Your task to perform on an android device: turn on bluetooth scan Image 0: 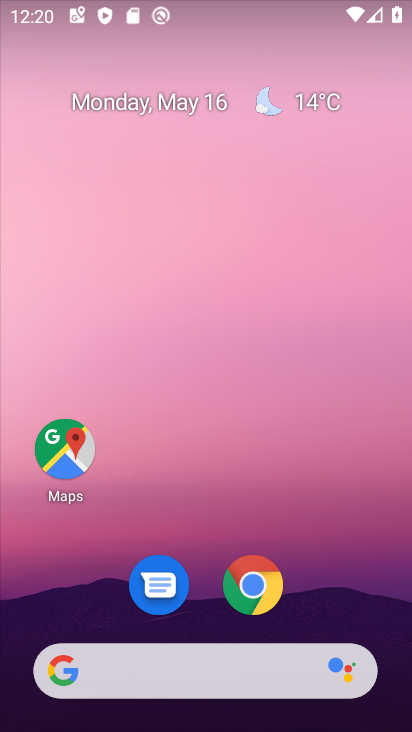
Step 0: drag from (257, 475) to (287, 29)
Your task to perform on an android device: turn on bluetooth scan Image 1: 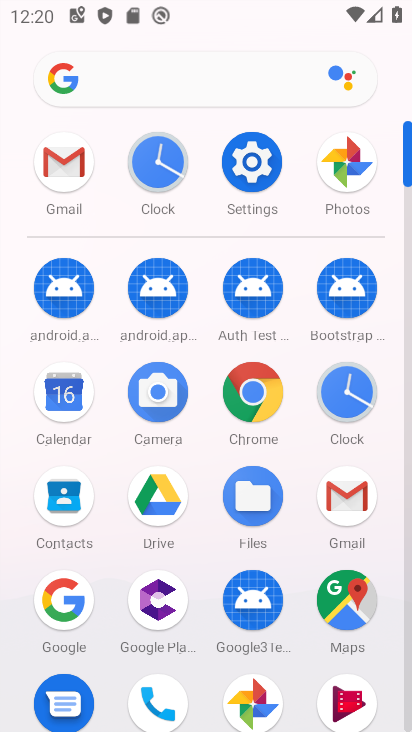
Step 1: click (255, 170)
Your task to perform on an android device: turn on bluetooth scan Image 2: 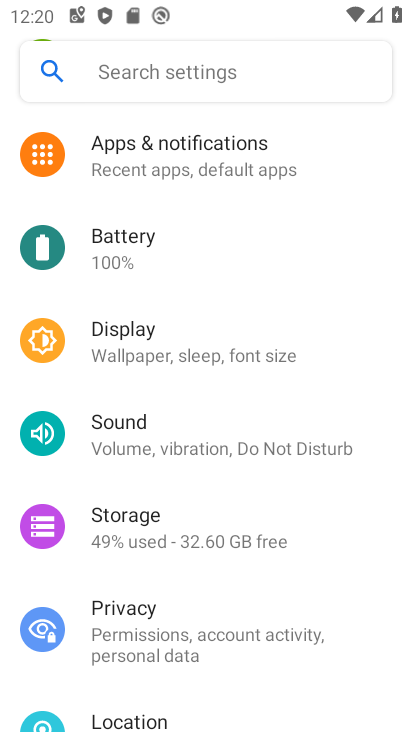
Step 2: drag from (235, 458) to (252, 198)
Your task to perform on an android device: turn on bluetooth scan Image 3: 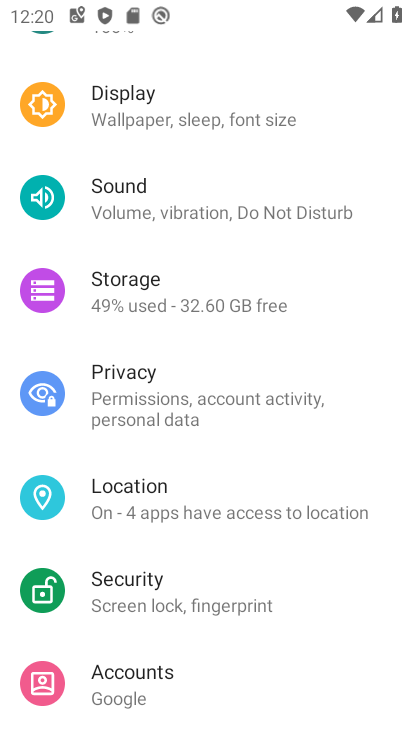
Step 3: click (214, 497)
Your task to perform on an android device: turn on bluetooth scan Image 4: 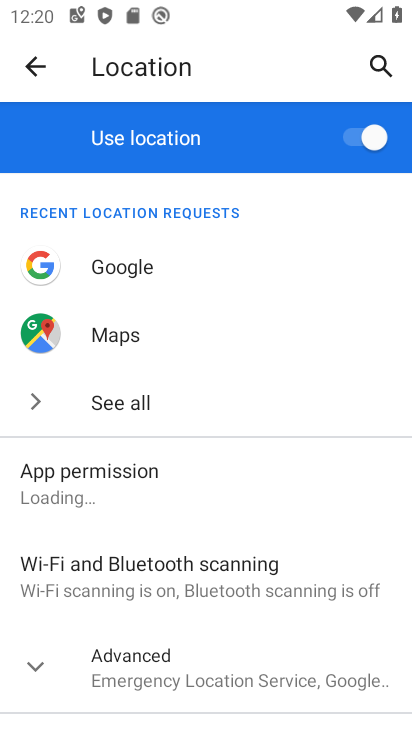
Step 4: click (223, 569)
Your task to perform on an android device: turn on bluetooth scan Image 5: 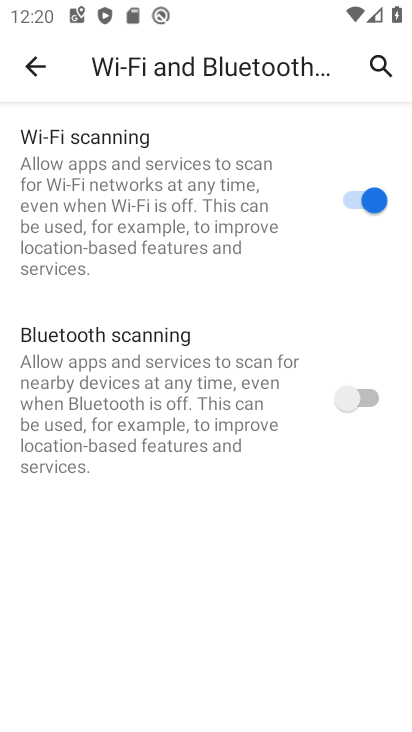
Step 5: click (373, 396)
Your task to perform on an android device: turn on bluetooth scan Image 6: 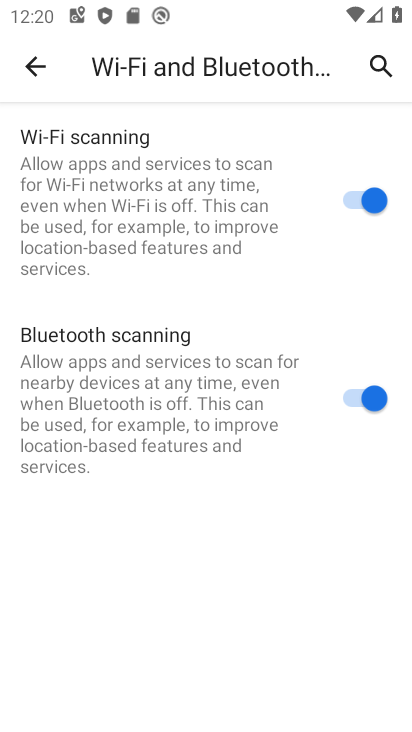
Step 6: task complete